Your task to perform on an android device: turn off notifications in google photos Image 0: 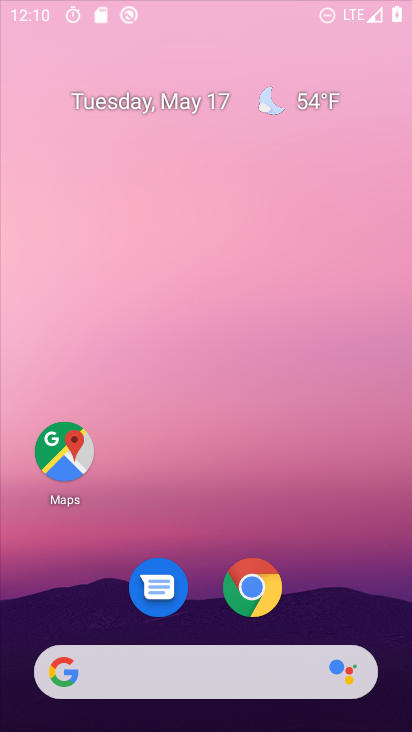
Step 0: drag from (206, 584) to (248, 150)
Your task to perform on an android device: turn off notifications in google photos Image 1: 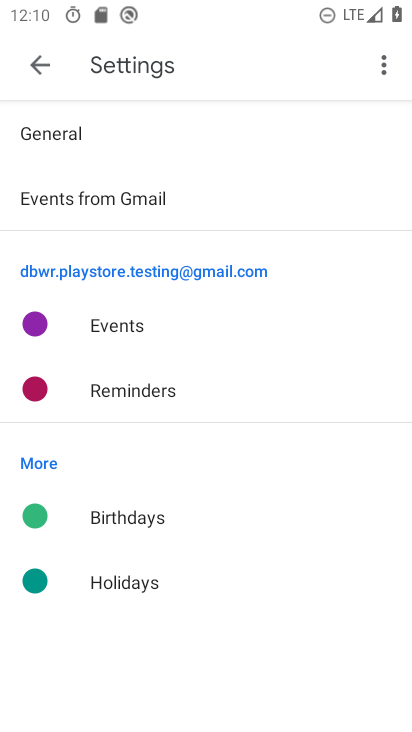
Step 1: press home button
Your task to perform on an android device: turn off notifications in google photos Image 2: 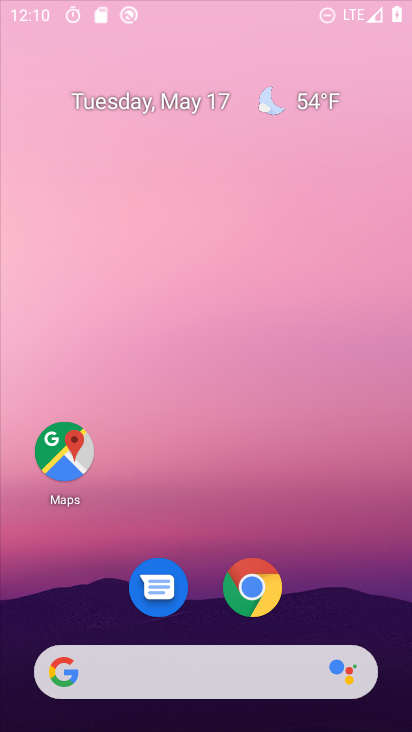
Step 2: drag from (191, 620) to (254, 175)
Your task to perform on an android device: turn off notifications in google photos Image 3: 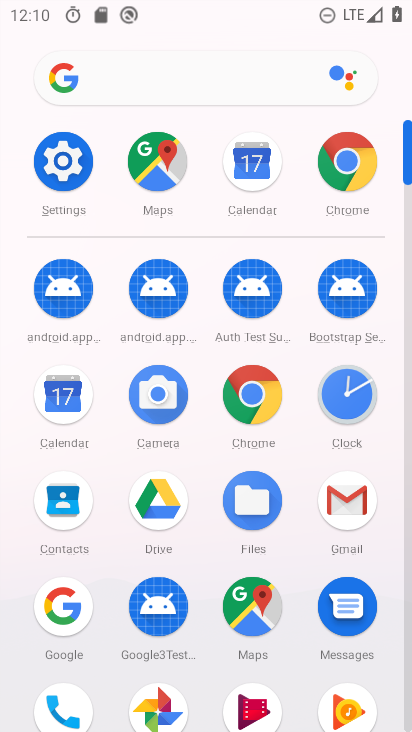
Step 3: click (159, 702)
Your task to perform on an android device: turn off notifications in google photos Image 4: 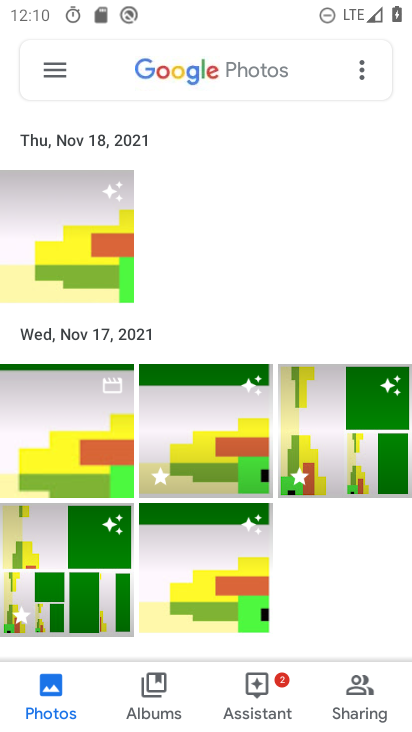
Step 4: click (61, 81)
Your task to perform on an android device: turn off notifications in google photos Image 5: 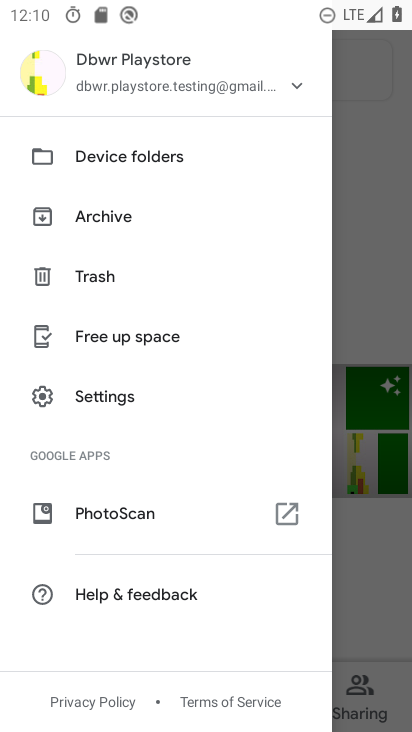
Step 5: click (76, 403)
Your task to perform on an android device: turn off notifications in google photos Image 6: 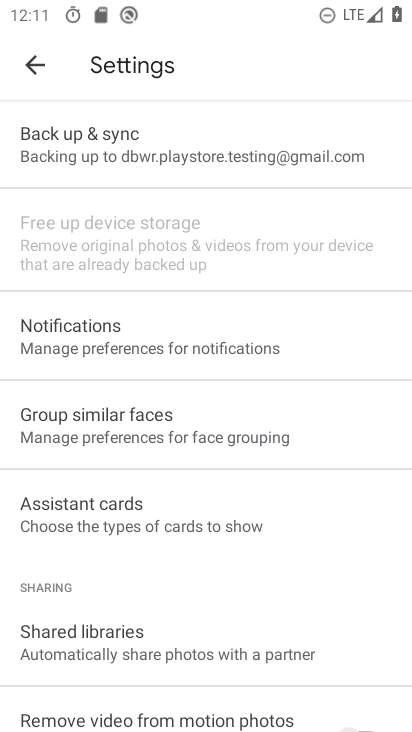
Step 6: click (84, 312)
Your task to perform on an android device: turn off notifications in google photos Image 7: 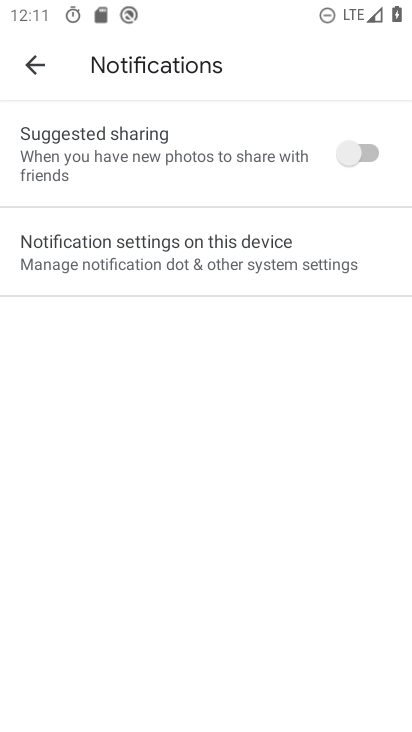
Step 7: click (174, 248)
Your task to perform on an android device: turn off notifications in google photos Image 8: 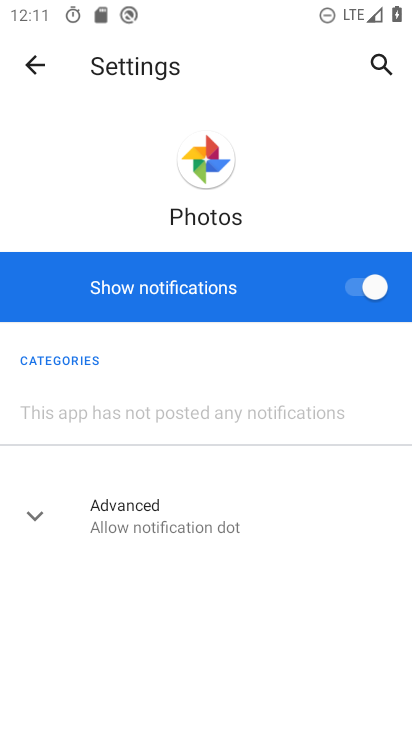
Step 8: click (368, 273)
Your task to perform on an android device: turn off notifications in google photos Image 9: 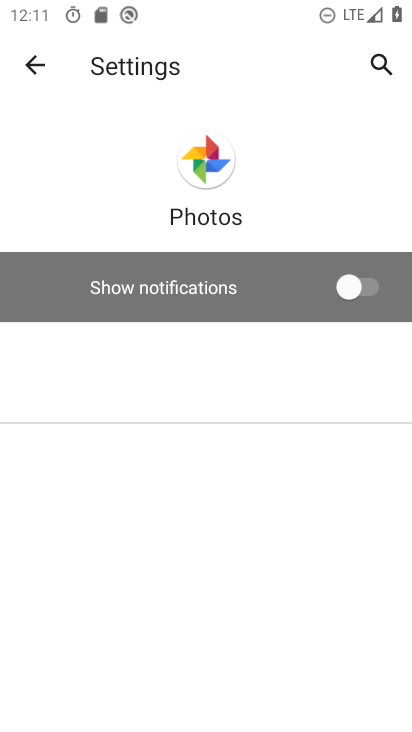
Step 9: task complete